Your task to perform on an android device: turn on bluetooth scan Image 0: 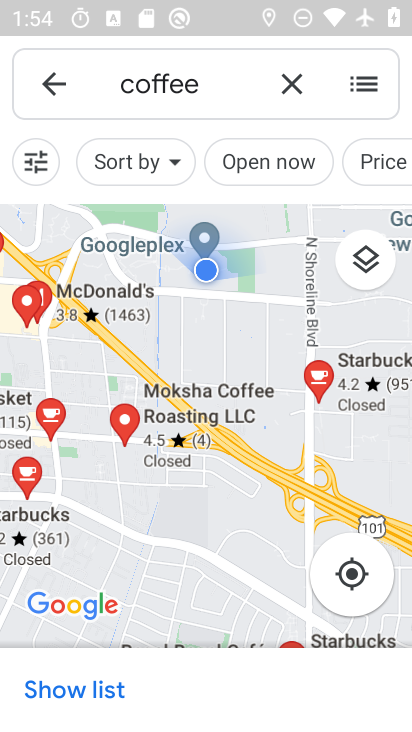
Step 0: press home button
Your task to perform on an android device: turn on bluetooth scan Image 1: 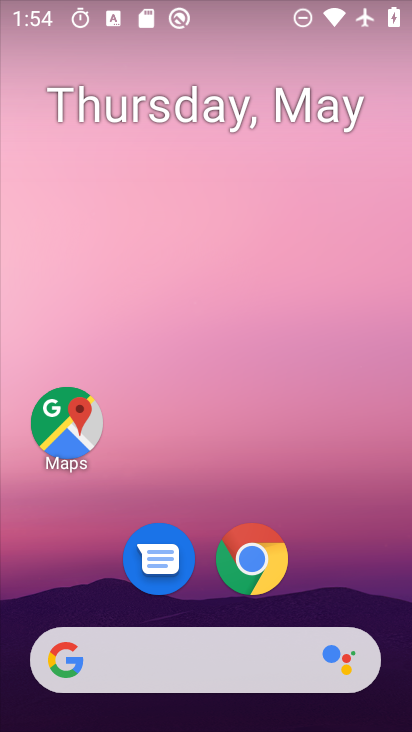
Step 1: drag from (226, 641) to (247, 25)
Your task to perform on an android device: turn on bluetooth scan Image 2: 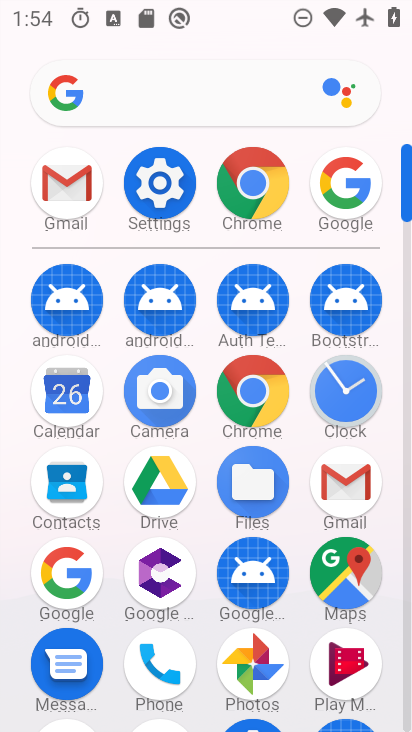
Step 2: click (161, 213)
Your task to perform on an android device: turn on bluetooth scan Image 3: 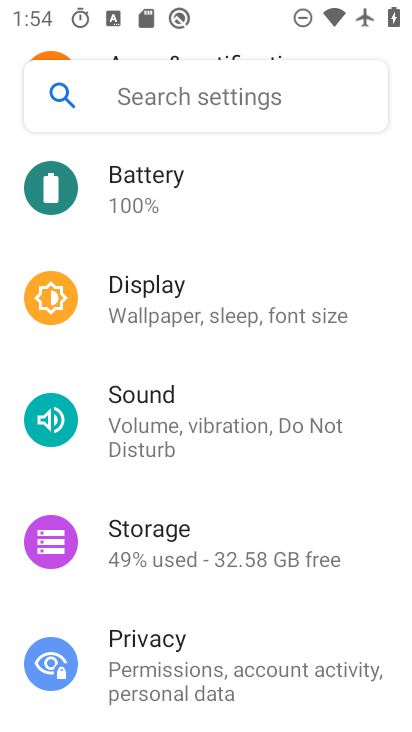
Step 3: drag from (175, 367) to (185, 697)
Your task to perform on an android device: turn on bluetooth scan Image 4: 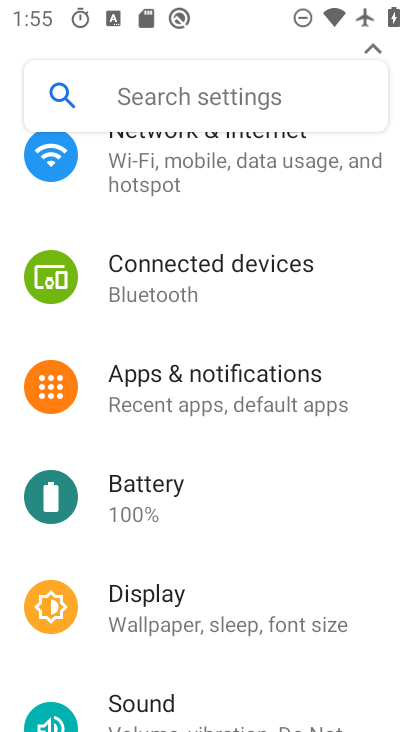
Step 4: click (262, 293)
Your task to perform on an android device: turn on bluetooth scan Image 5: 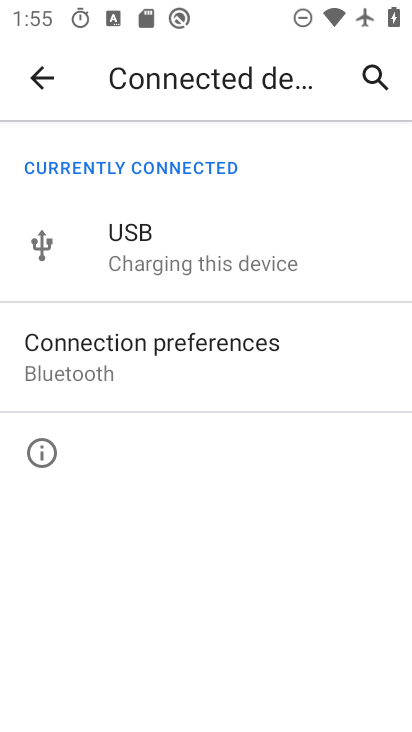
Step 5: click (223, 357)
Your task to perform on an android device: turn on bluetooth scan Image 6: 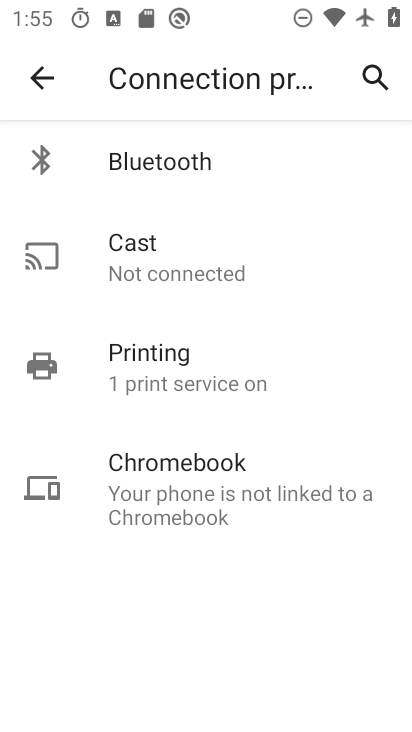
Step 6: click (228, 122)
Your task to perform on an android device: turn on bluetooth scan Image 7: 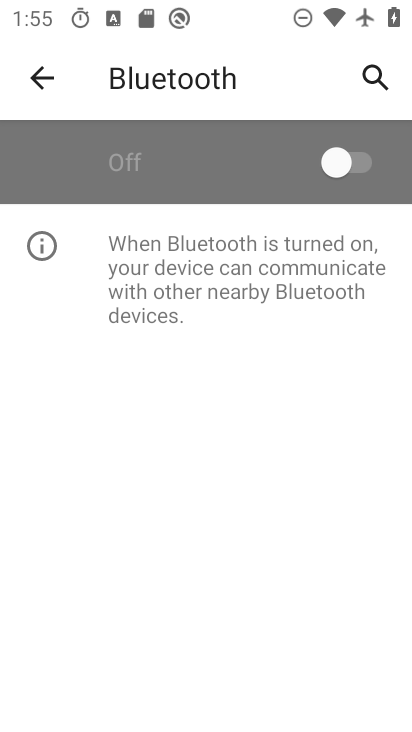
Step 7: task complete